Your task to perform on an android device: open wifi settings Image 0: 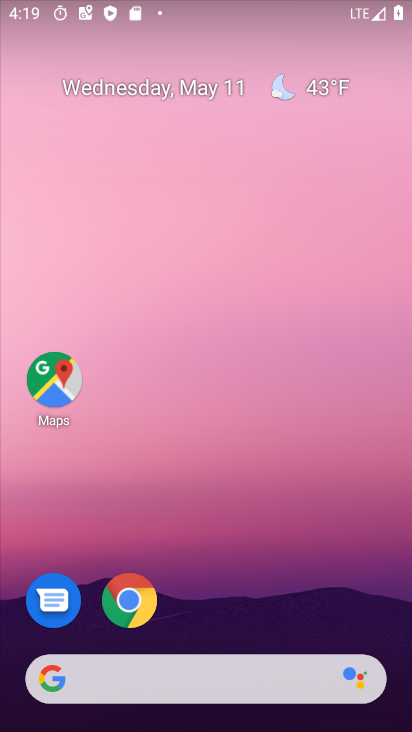
Step 0: drag from (343, 642) to (321, 3)
Your task to perform on an android device: open wifi settings Image 1: 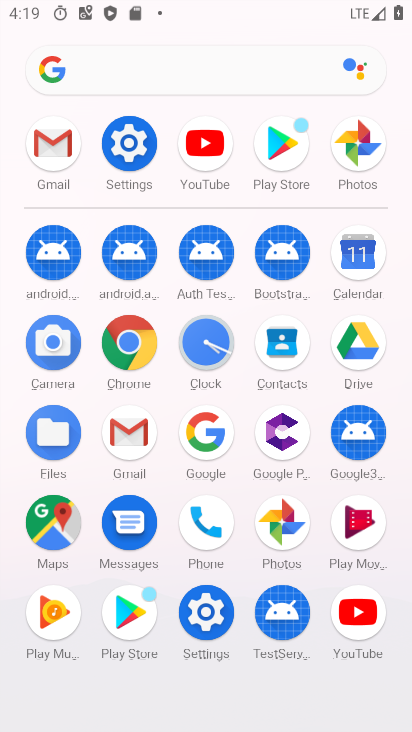
Step 1: click (118, 153)
Your task to perform on an android device: open wifi settings Image 2: 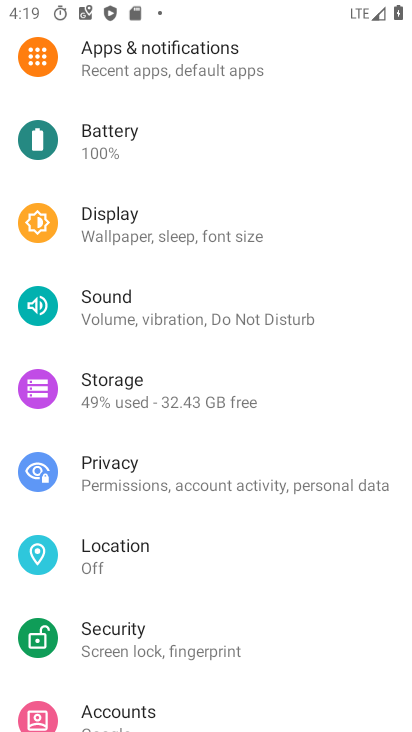
Step 2: drag from (330, 176) to (311, 531)
Your task to perform on an android device: open wifi settings Image 3: 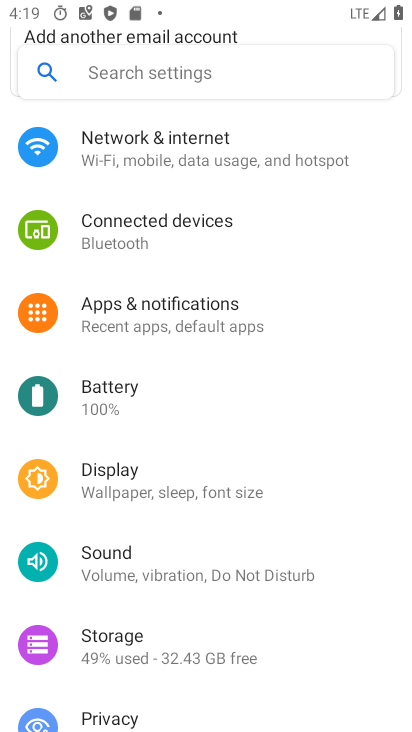
Step 3: click (179, 148)
Your task to perform on an android device: open wifi settings Image 4: 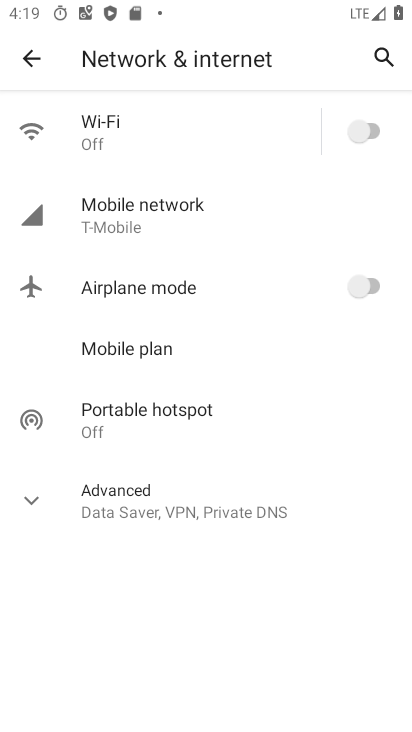
Step 4: click (79, 138)
Your task to perform on an android device: open wifi settings Image 5: 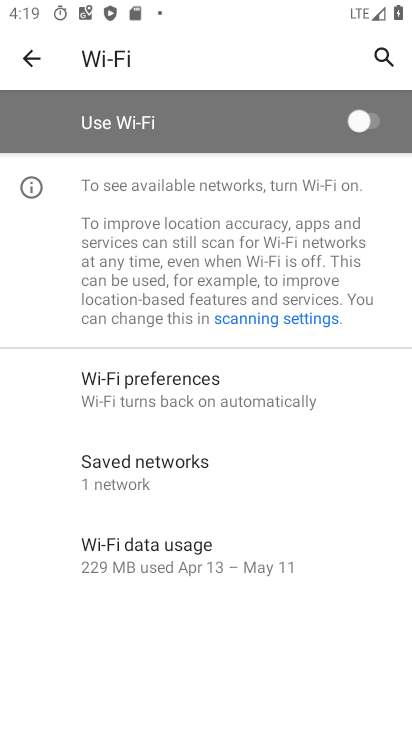
Step 5: task complete